Your task to perform on an android device: turn off priority inbox in the gmail app Image 0: 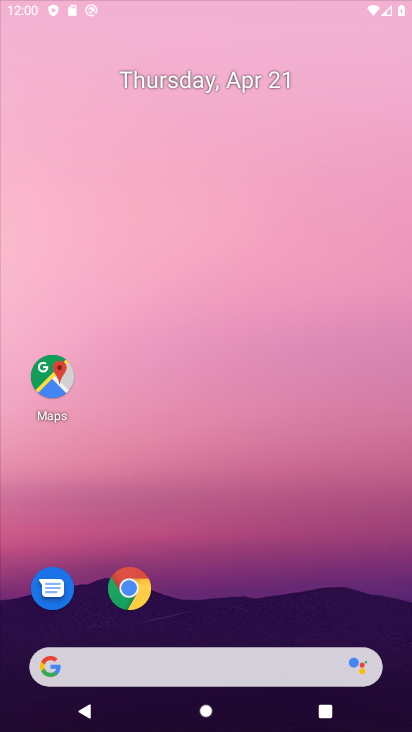
Step 0: drag from (137, 638) to (274, 91)
Your task to perform on an android device: turn off priority inbox in the gmail app Image 1: 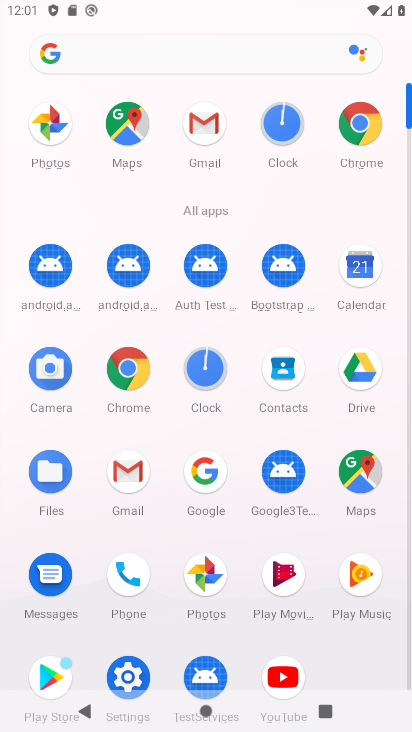
Step 1: click (146, 475)
Your task to perform on an android device: turn off priority inbox in the gmail app Image 2: 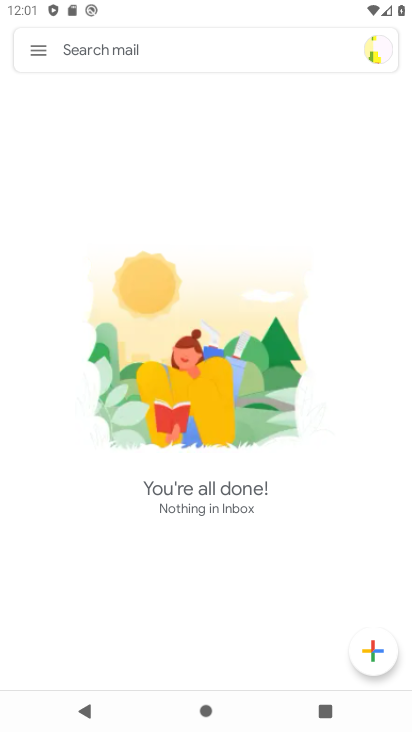
Step 2: click (43, 52)
Your task to perform on an android device: turn off priority inbox in the gmail app Image 3: 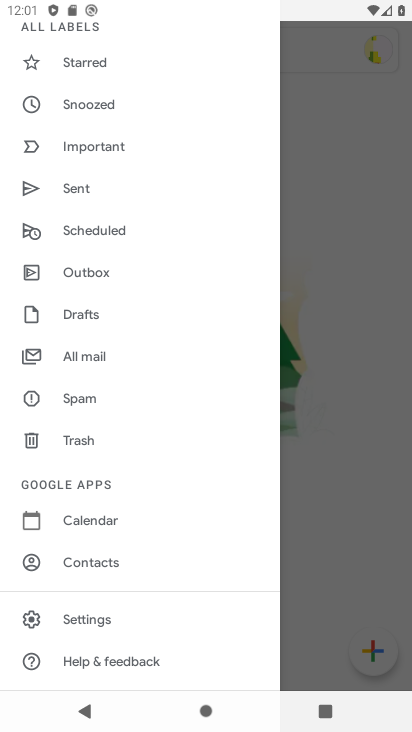
Step 3: click (125, 624)
Your task to perform on an android device: turn off priority inbox in the gmail app Image 4: 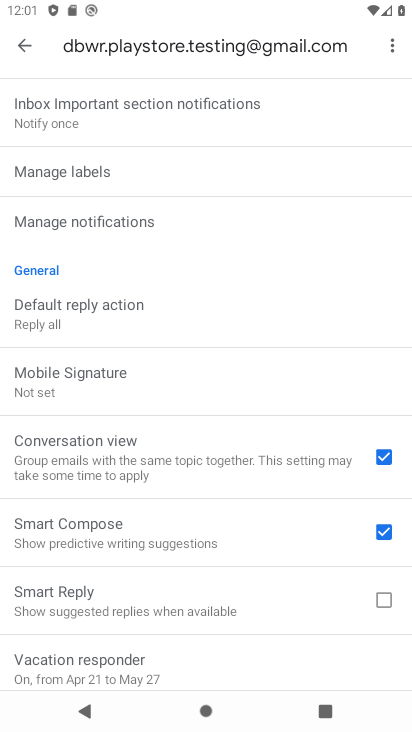
Step 4: drag from (205, 223) to (147, 583)
Your task to perform on an android device: turn off priority inbox in the gmail app Image 5: 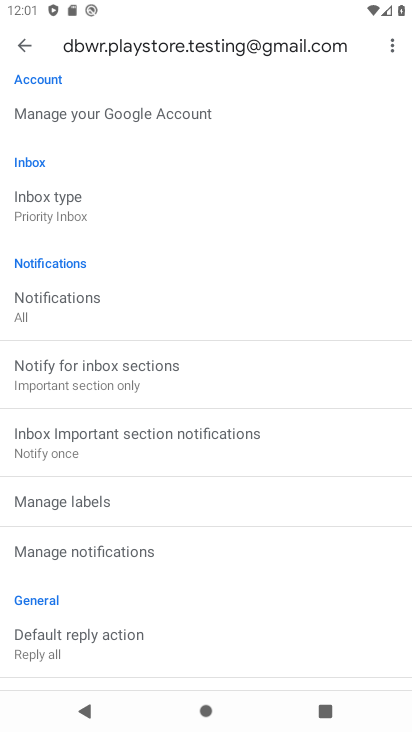
Step 5: click (128, 221)
Your task to perform on an android device: turn off priority inbox in the gmail app Image 6: 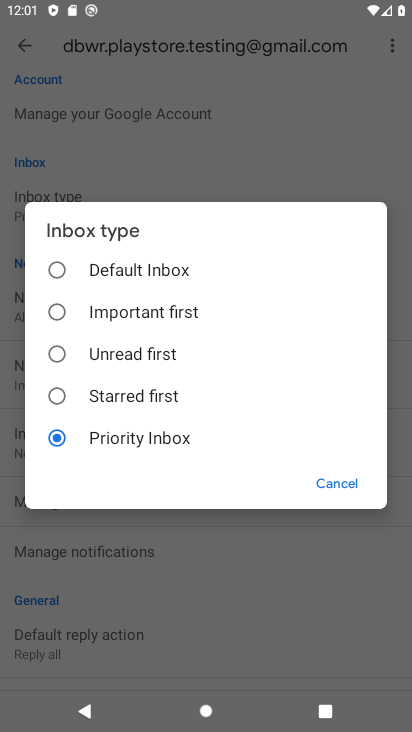
Step 6: click (148, 273)
Your task to perform on an android device: turn off priority inbox in the gmail app Image 7: 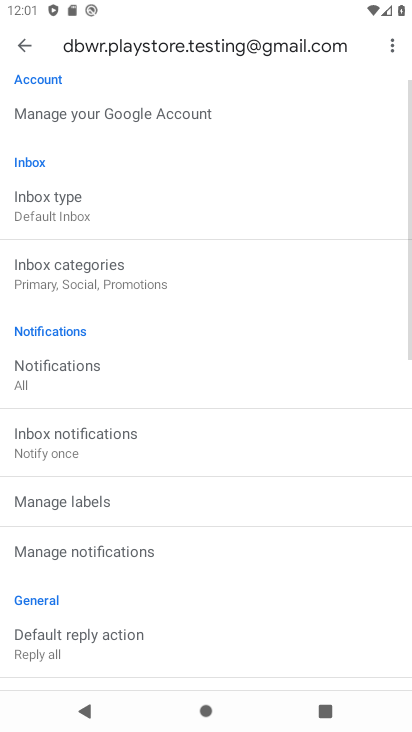
Step 7: task complete